Your task to perform on an android device: Is it going to rain tomorrow? Image 0: 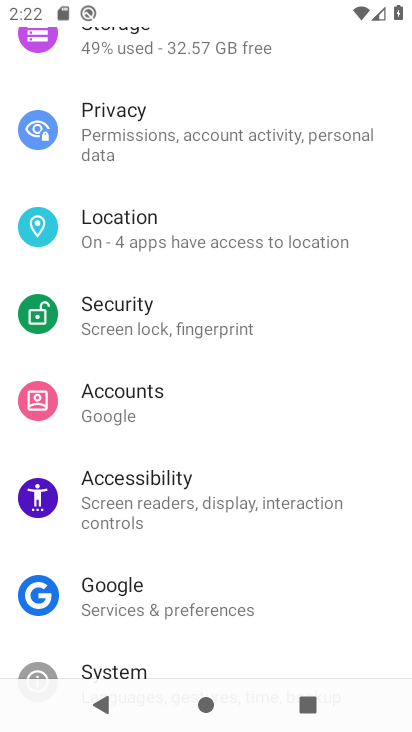
Step 0: press home button
Your task to perform on an android device: Is it going to rain tomorrow? Image 1: 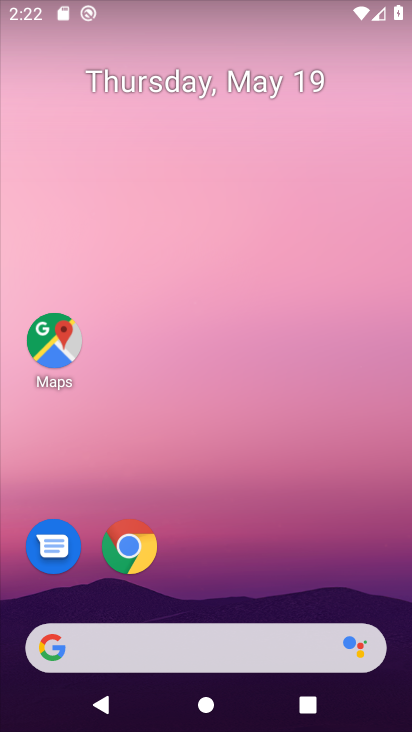
Step 1: drag from (200, 588) to (221, 48)
Your task to perform on an android device: Is it going to rain tomorrow? Image 2: 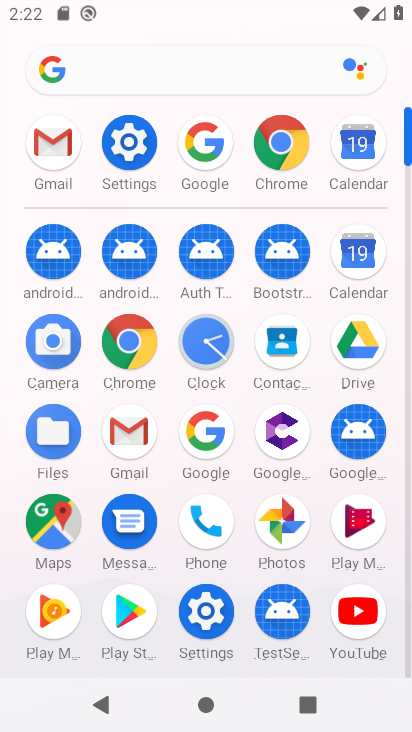
Step 2: press home button
Your task to perform on an android device: Is it going to rain tomorrow? Image 3: 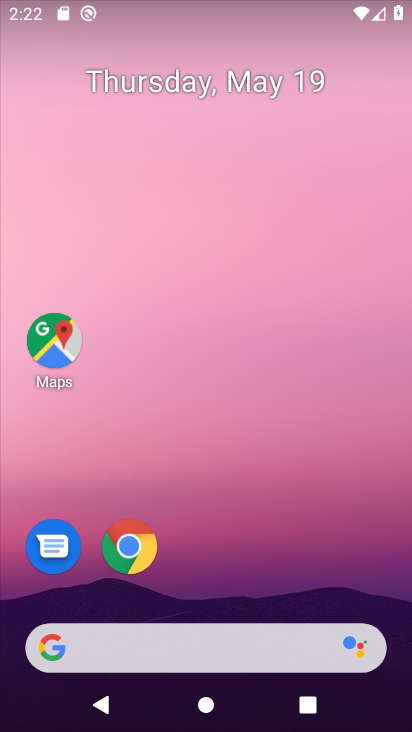
Step 3: drag from (10, 411) to (410, 407)
Your task to perform on an android device: Is it going to rain tomorrow? Image 4: 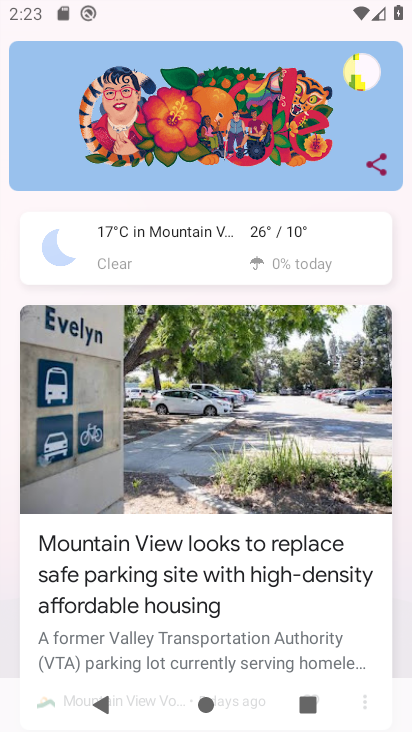
Step 4: click (288, 240)
Your task to perform on an android device: Is it going to rain tomorrow? Image 5: 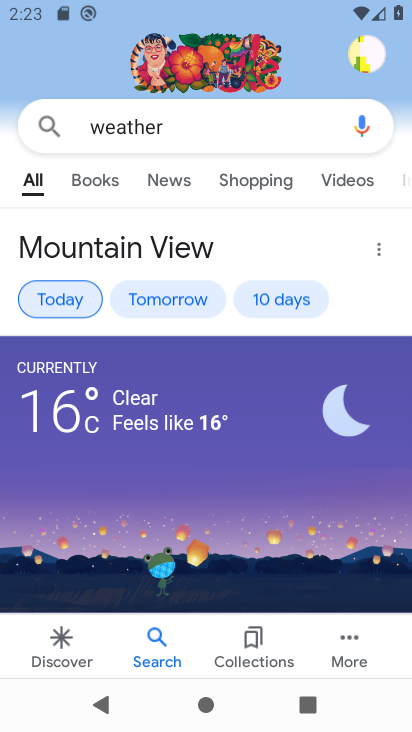
Step 5: click (174, 314)
Your task to perform on an android device: Is it going to rain tomorrow? Image 6: 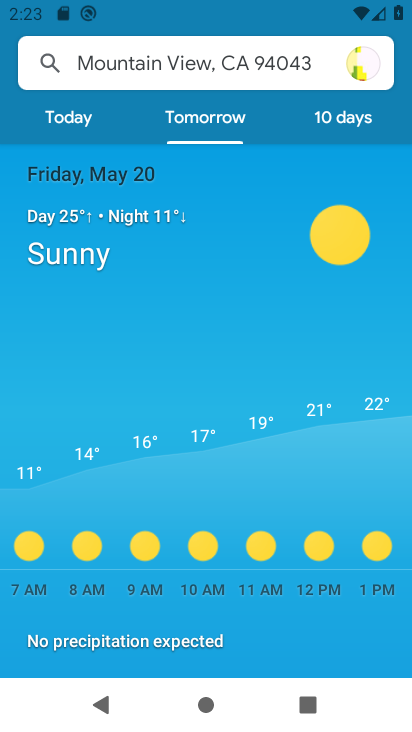
Step 6: task complete